Your task to perform on an android device: check storage Image 0: 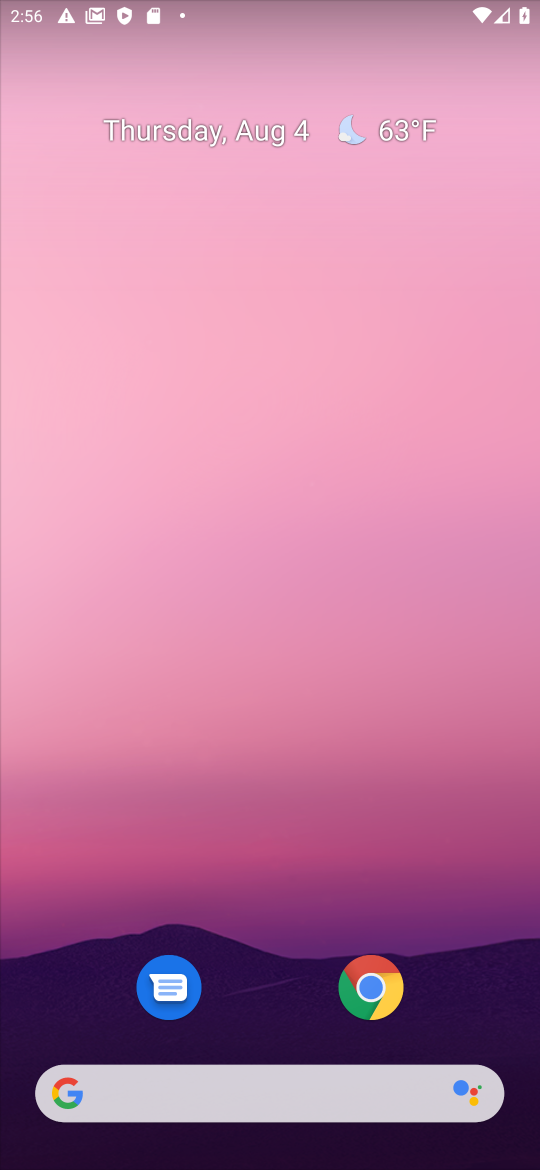
Step 0: drag from (255, 942) to (338, 217)
Your task to perform on an android device: check storage Image 1: 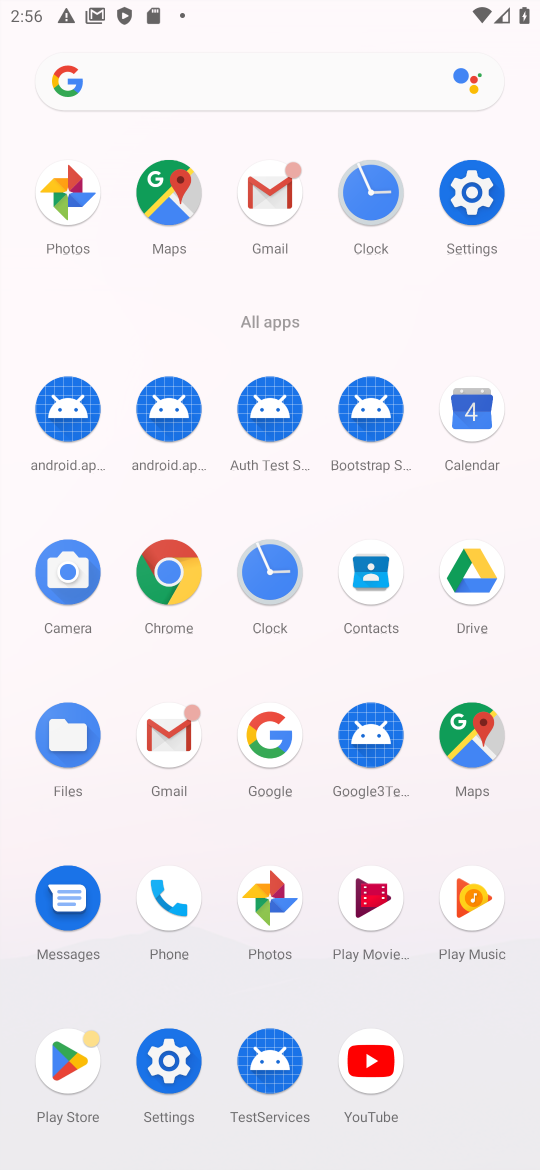
Step 1: click (467, 228)
Your task to perform on an android device: check storage Image 2: 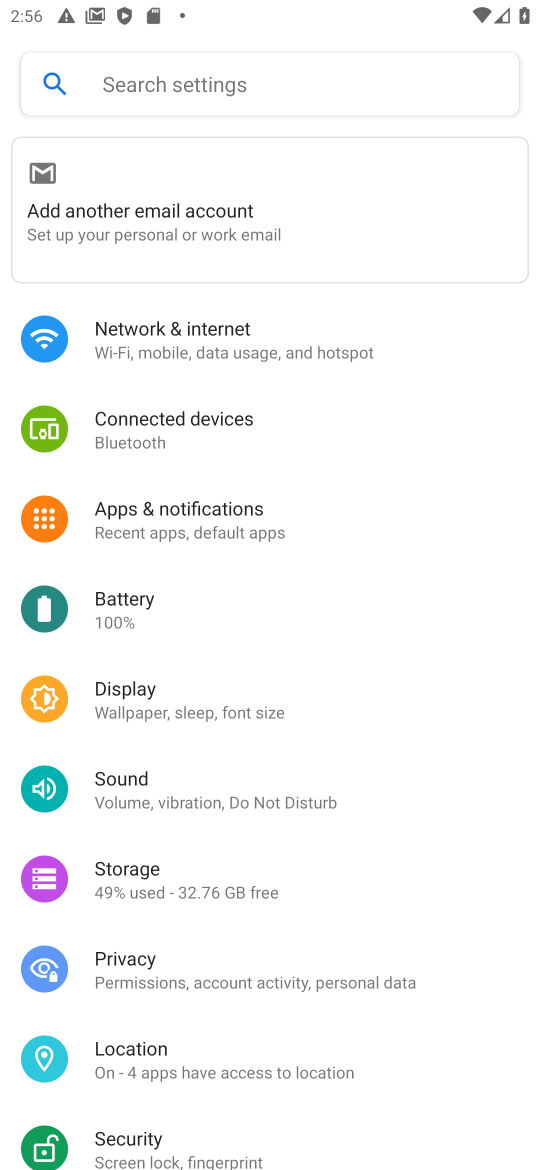
Step 2: click (131, 876)
Your task to perform on an android device: check storage Image 3: 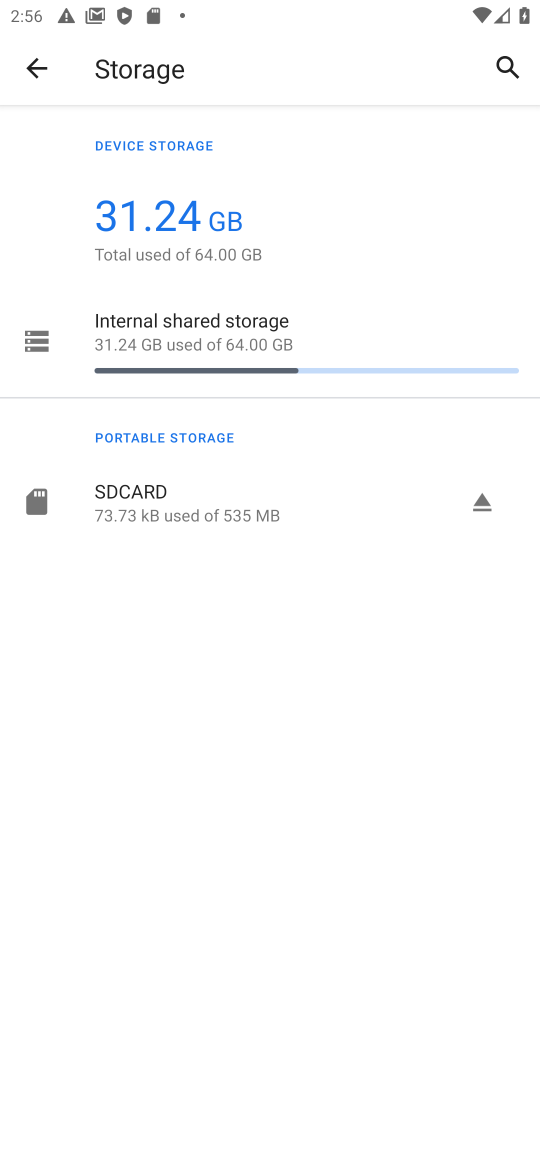
Step 3: task complete